Your task to perform on an android device: remove spam from my inbox in the gmail app Image 0: 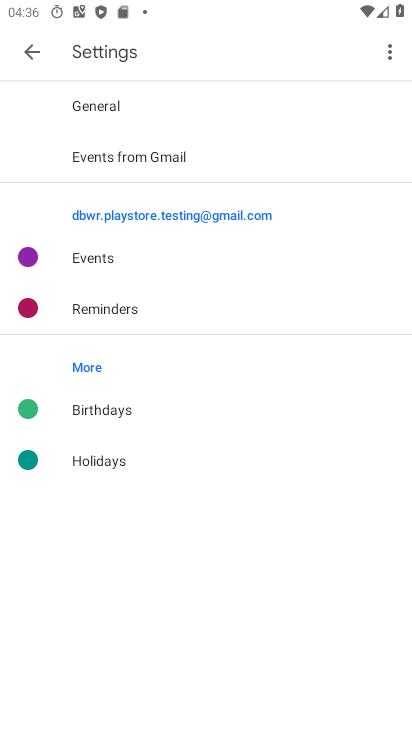
Step 0: click (35, 58)
Your task to perform on an android device: remove spam from my inbox in the gmail app Image 1: 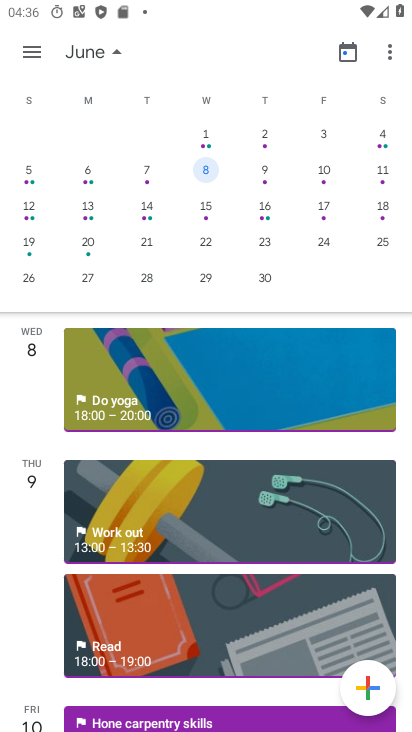
Step 1: press back button
Your task to perform on an android device: remove spam from my inbox in the gmail app Image 2: 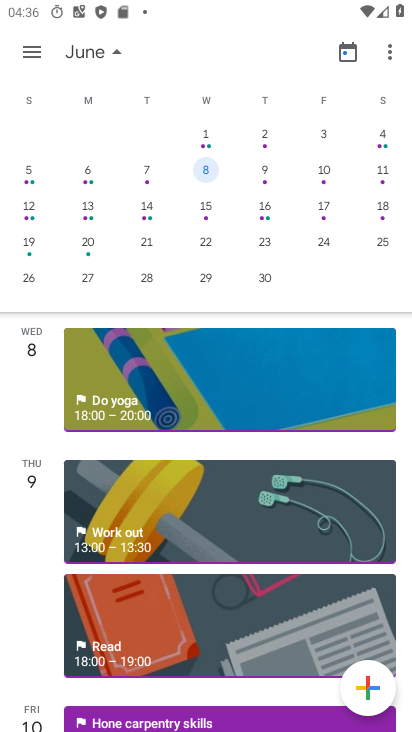
Step 2: press back button
Your task to perform on an android device: remove spam from my inbox in the gmail app Image 3: 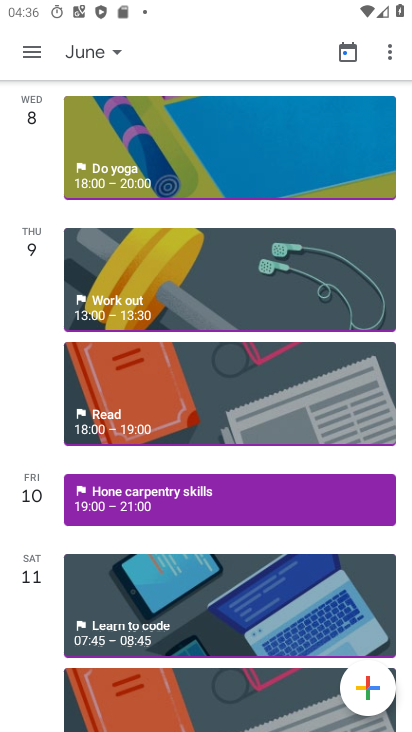
Step 3: press back button
Your task to perform on an android device: remove spam from my inbox in the gmail app Image 4: 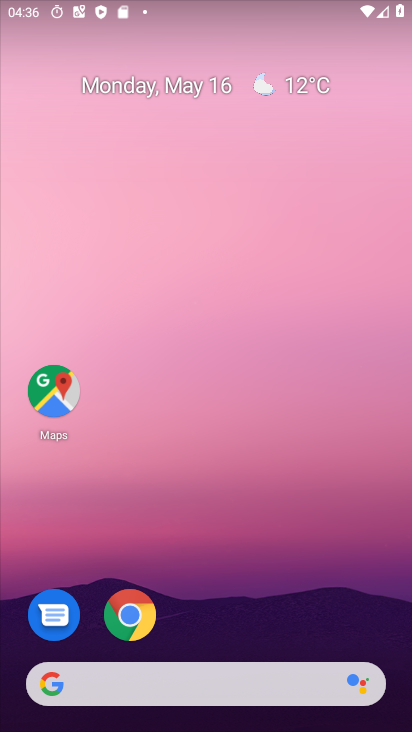
Step 4: press home button
Your task to perform on an android device: remove spam from my inbox in the gmail app Image 5: 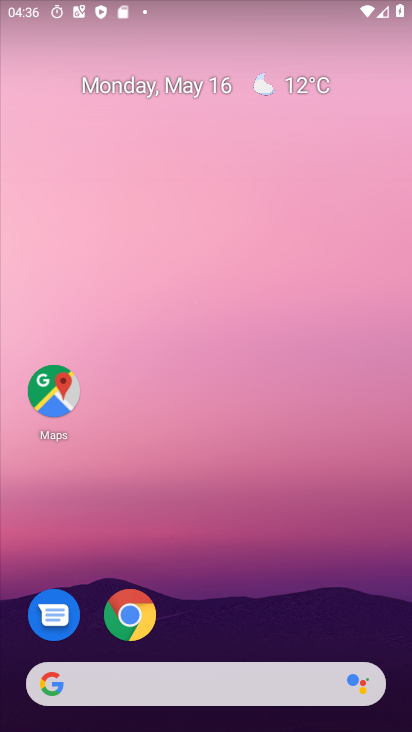
Step 5: drag from (252, 540) to (165, 172)
Your task to perform on an android device: remove spam from my inbox in the gmail app Image 6: 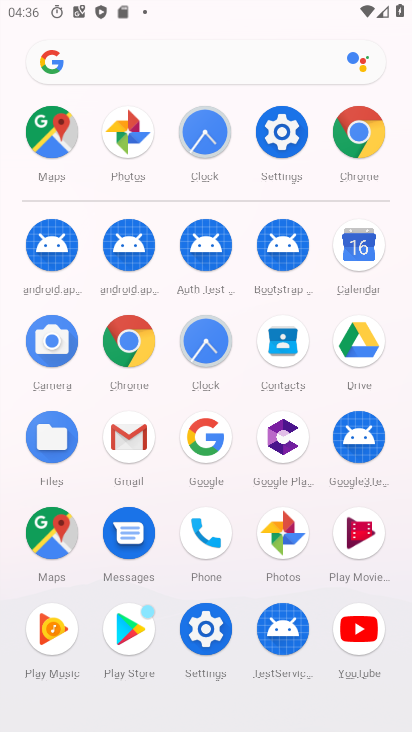
Step 6: click (110, 429)
Your task to perform on an android device: remove spam from my inbox in the gmail app Image 7: 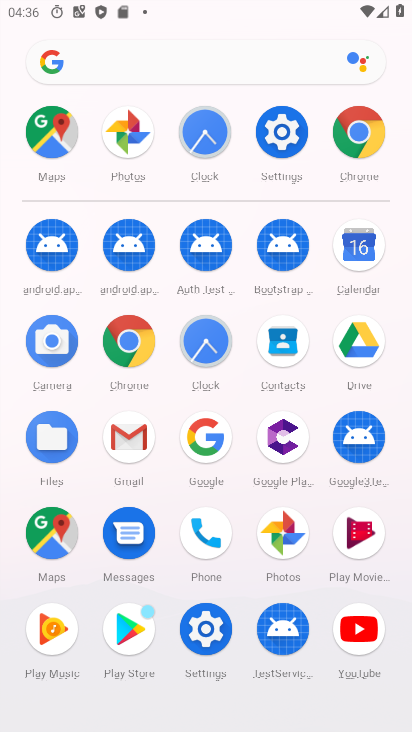
Step 7: click (121, 437)
Your task to perform on an android device: remove spam from my inbox in the gmail app Image 8: 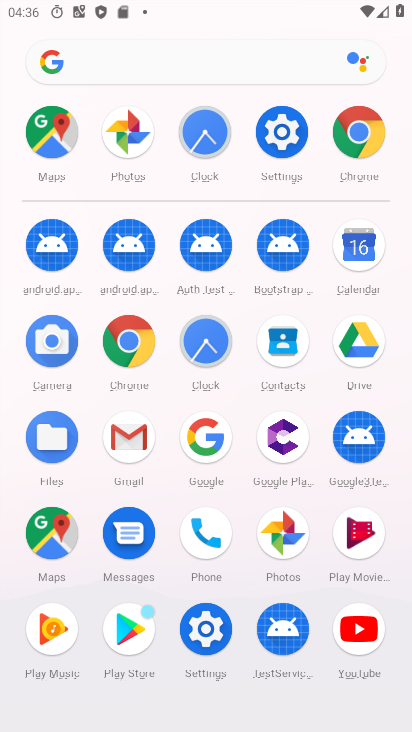
Step 8: click (121, 437)
Your task to perform on an android device: remove spam from my inbox in the gmail app Image 9: 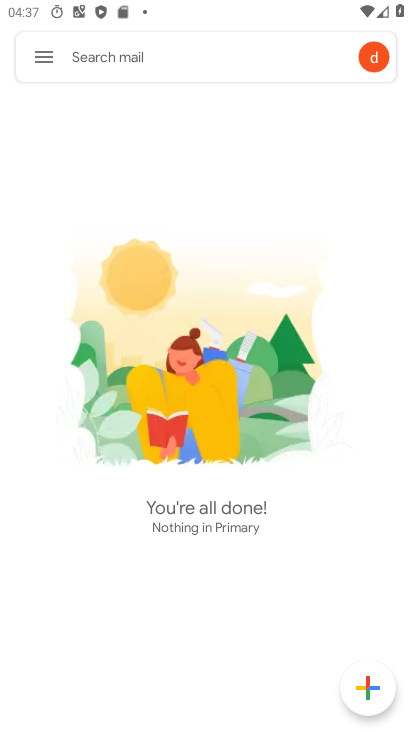
Step 9: click (39, 60)
Your task to perform on an android device: remove spam from my inbox in the gmail app Image 10: 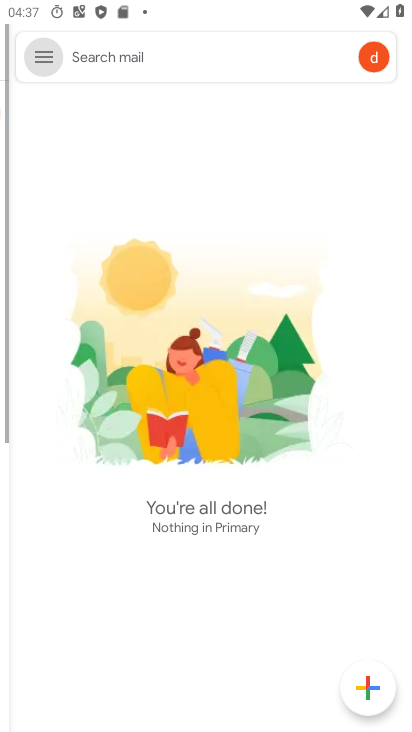
Step 10: click (42, 56)
Your task to perform on an android device: remove spam from my inbox in the gmail app Image 11: 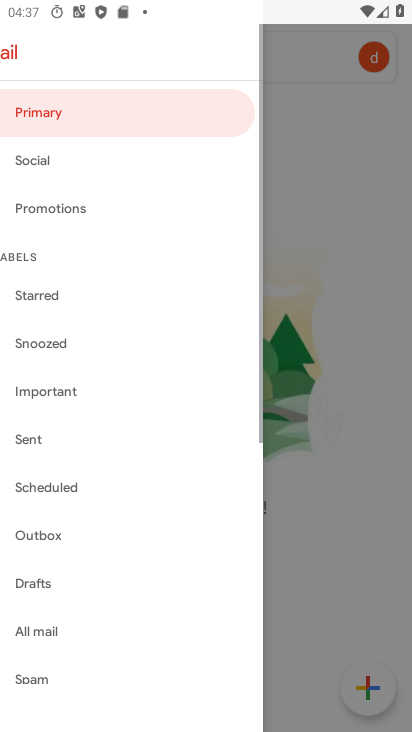
Step 11: click (42, 56)
Your task to perform on an android device: remove spam from my inbox in the gmail app Image 12: 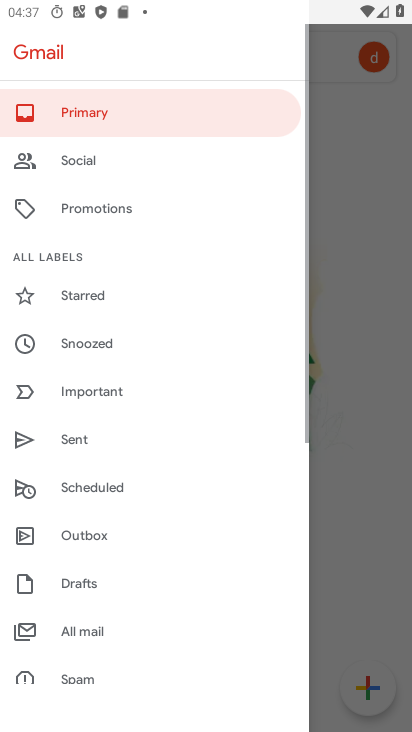
Step 12: click (40, 56)
Your task to perform on an android device: remove spam from my inbox in the gmail app Image 13: 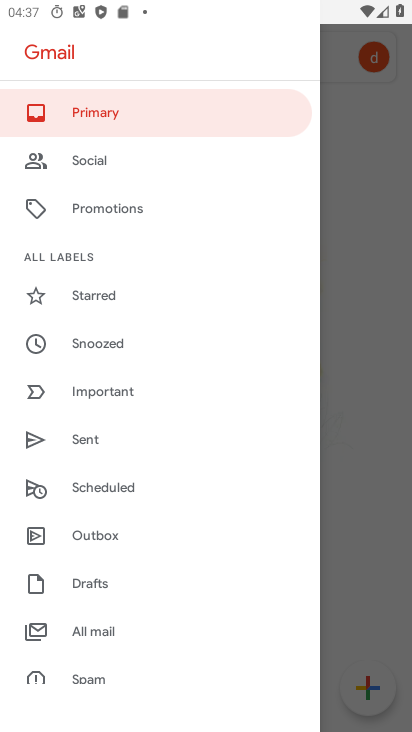
Step 13: drag from (133, 583) to (136, 264)
Your task to perform on an android device: remove spam from my inbox in the gmail app Image 14: 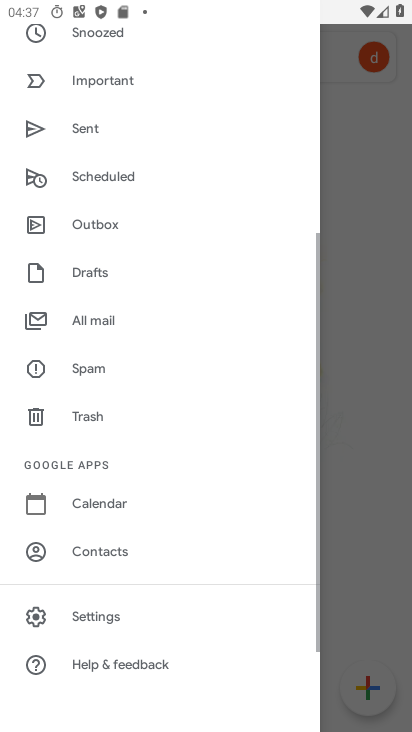
Step 14: drag from (188, 390) to (131, 150)
Your task to perform on an android device: remove spam from my inbox in the gmail app Image 15: 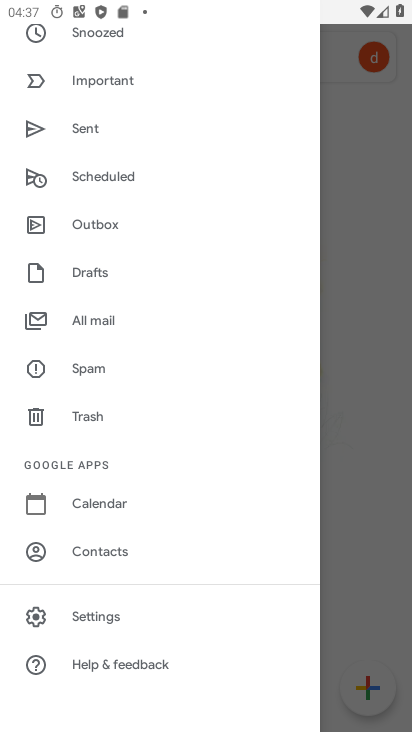
Step 15: click (94, 367)
Your task to perform on an android device: remove spam from my inbox in the gmail app Image 16: 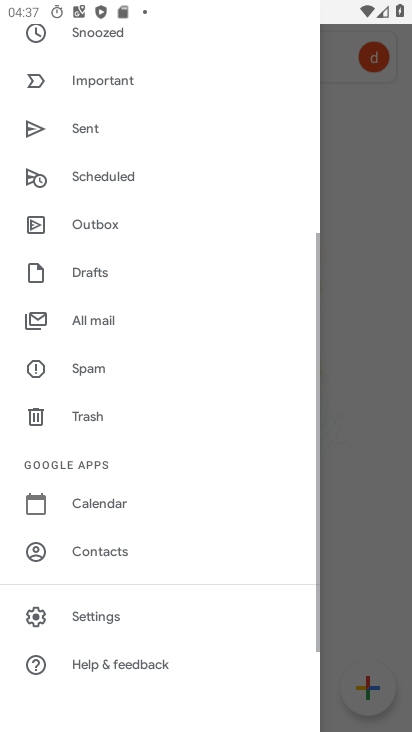
Step 16: click (94, 367)
Your task to perform on an android device: remove spam from my inbox in the gmail app Image 17: 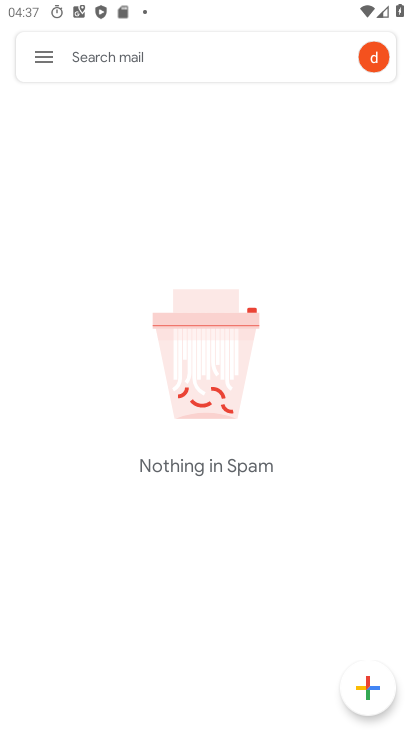
Step 17: click (38, 64)
Your task to perform on an android device: remove spam from my inbox in the gmail app Image 18: 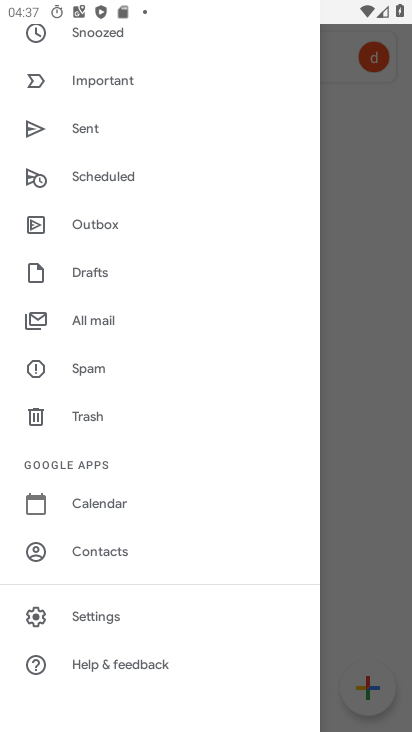
Step 18: click (344, 251)
Your task to perform on an android device: remove spam from my inbox in the gmail app Image 19: 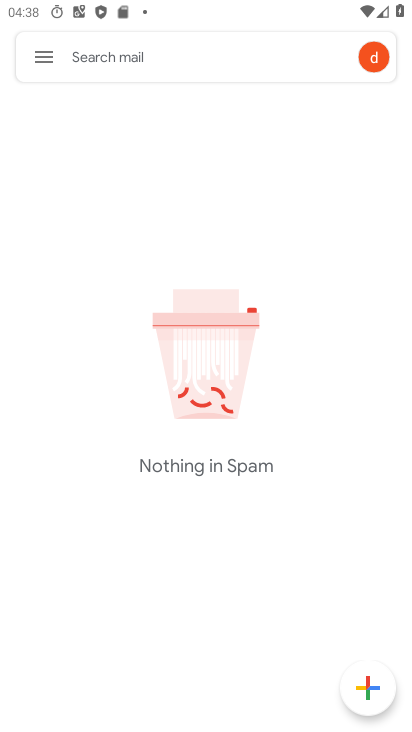
Step 19: task complete